Your task to perform on an android device: Search for seafood restaurants on Google Maps Image 0: 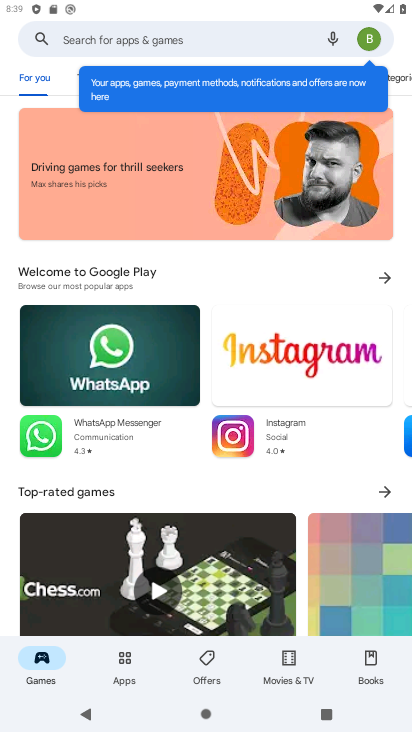
Step 0: press home button
Your task to perform on an android device: Search for seafood restaurants on Google Maps Image 1: 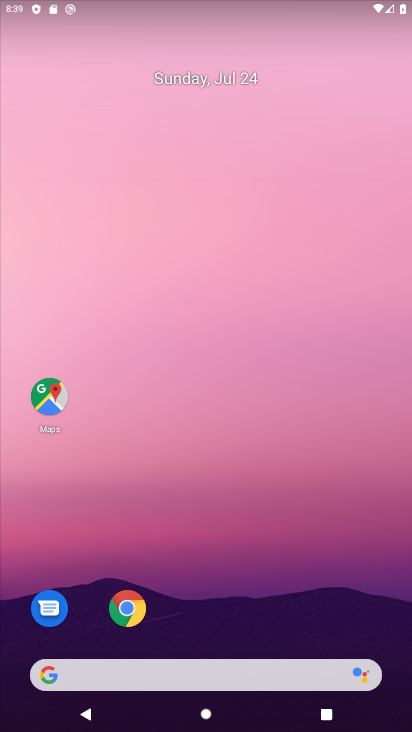
Step 1: click (57, 398)
Your task to perform on an android device: Search for seafood restaurants on Google Maps Image 2: 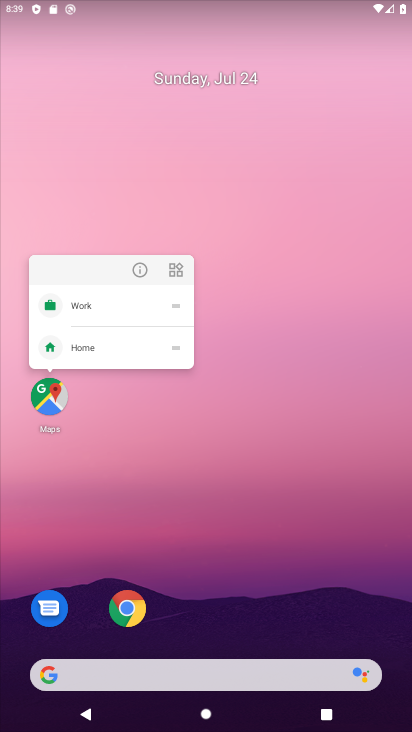
Step 2: click (62, 395)
Your task to perform on an android device: Search for seafood restaurants on Google Maps Image 3: 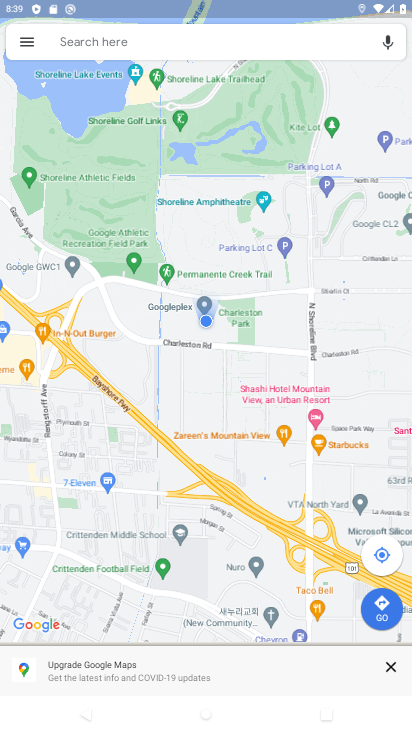
Step 3: click (200, 40)
Your task to perform on an android device: Search for seafood restaurants on Google Maps Image 4: 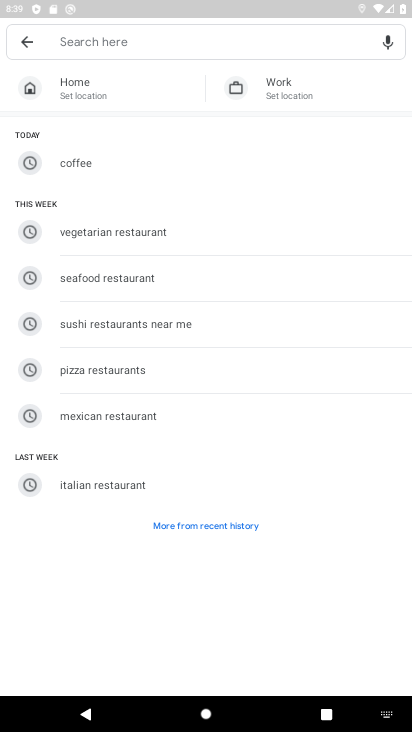
Step 4: type "seafood restayrants"
Your task to perform on an android device: Search for seafood restaurants on Google Maps Image 5: 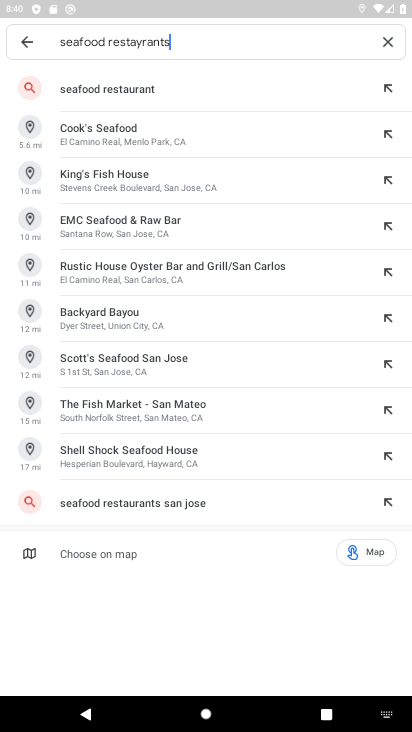
Step 5: click (164, 88)
Your task to perform on an android device: Search for seafood restaurants on Google Maps Image 6: 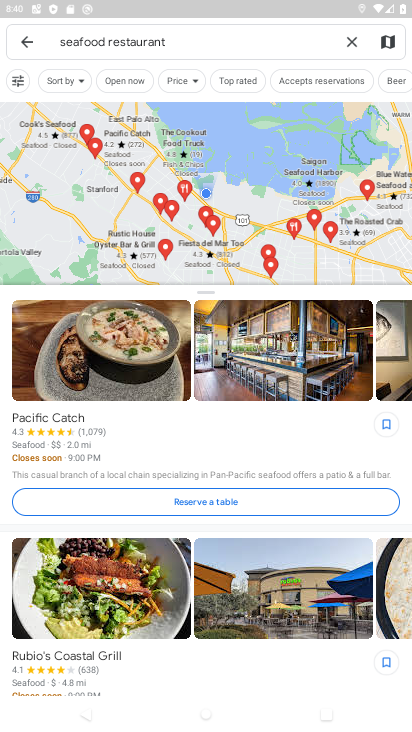
Step 6: task complete